Your task to perform on an android device: Clear the shopping cart on amazon.com. Add "razer blade" to the cart on amazon.com Image 0: 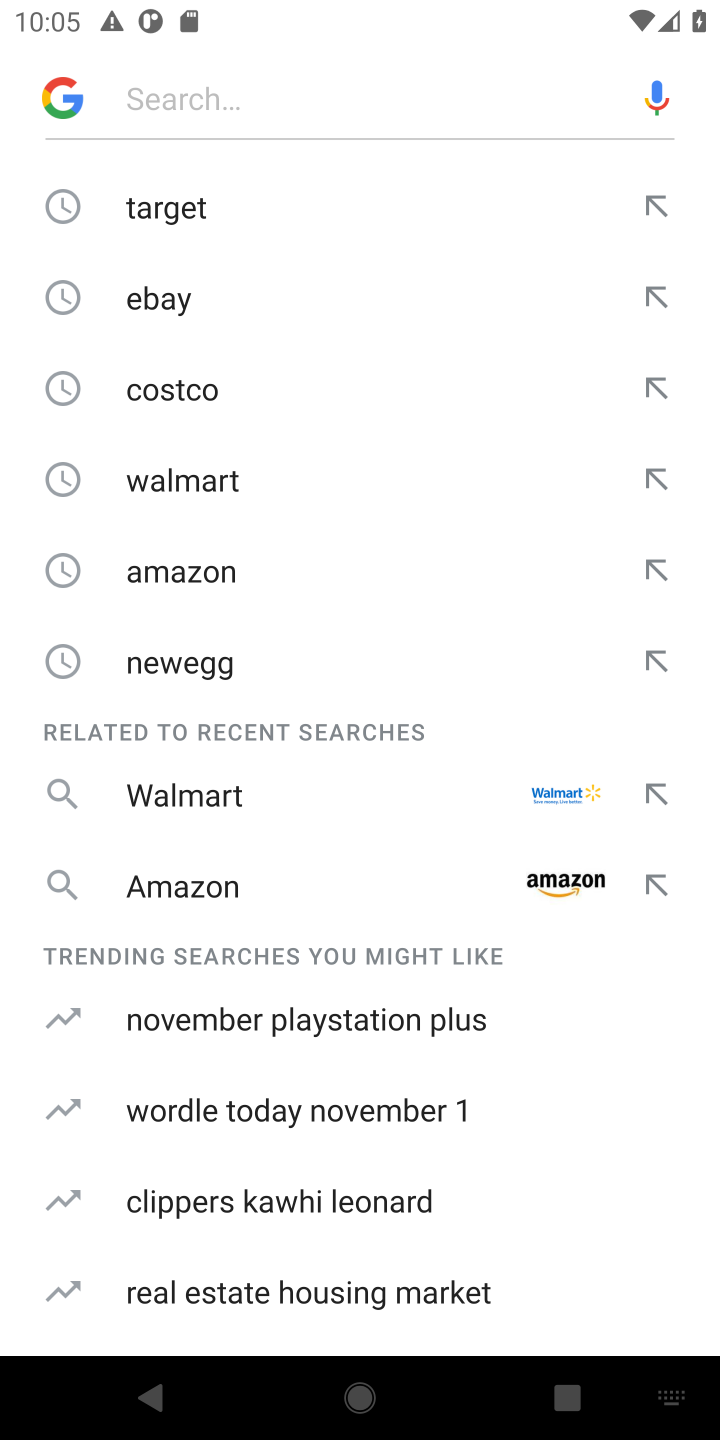
Step 0: press home button
Your task to perform on an android device: Clear the shopping cart on amazon.com. Add "razer blade" to the cart on amazon.com Image 1: 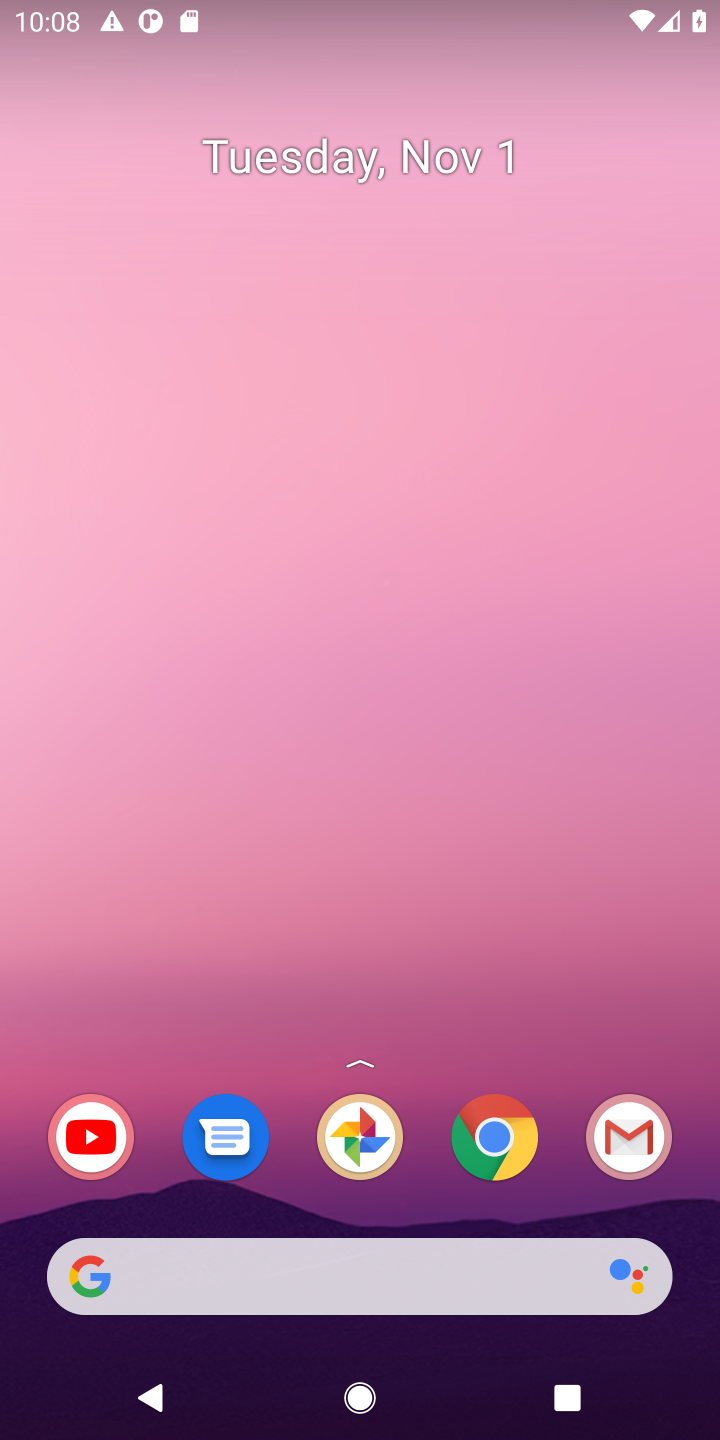
Step 1: click (473, 1299)
Your task to perform on an android device: Clear the shopping cart on amazon.com. Add "razer blade" to the cart on amazon.com Image 2: 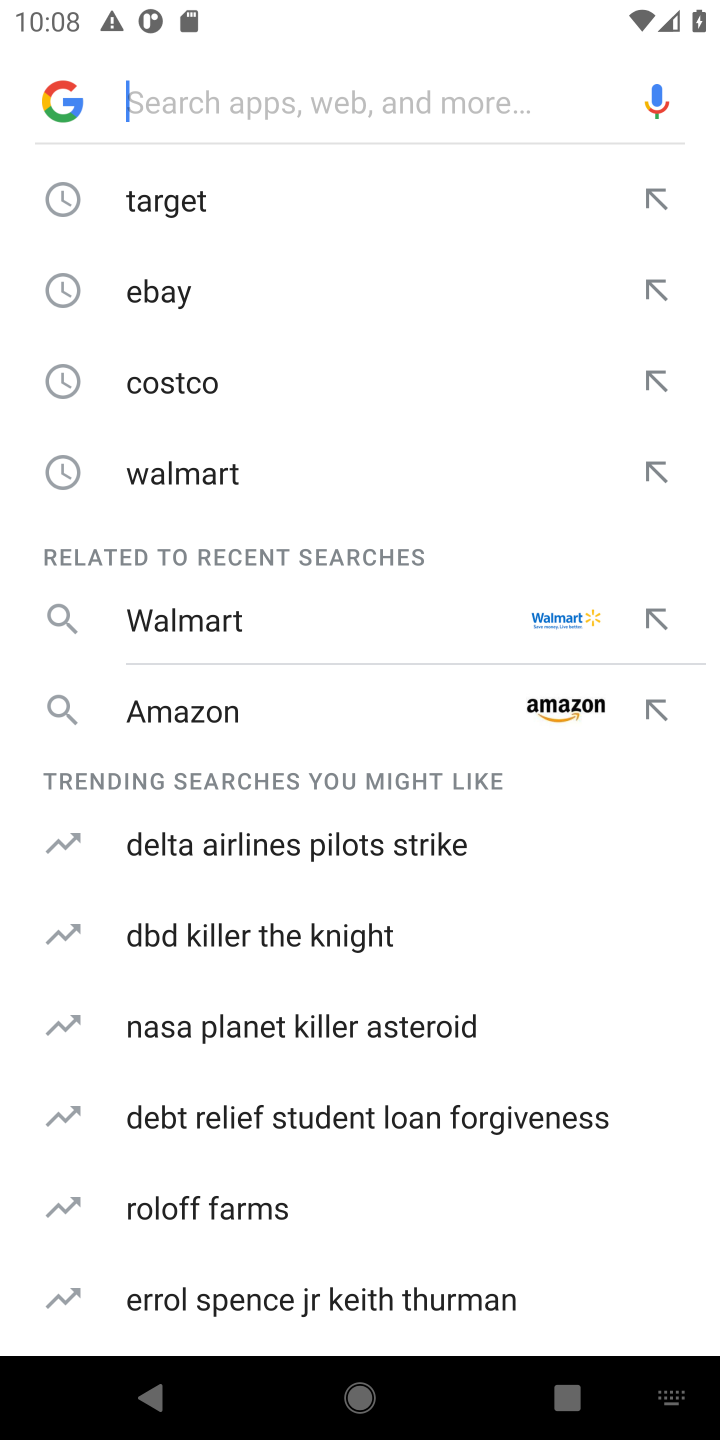
Step 2: click (257, 702)
Your task to perform on an android device: Clear the shopping cart on amazon.com. Add "razer blade" to the cart on amazon.com Image 3: 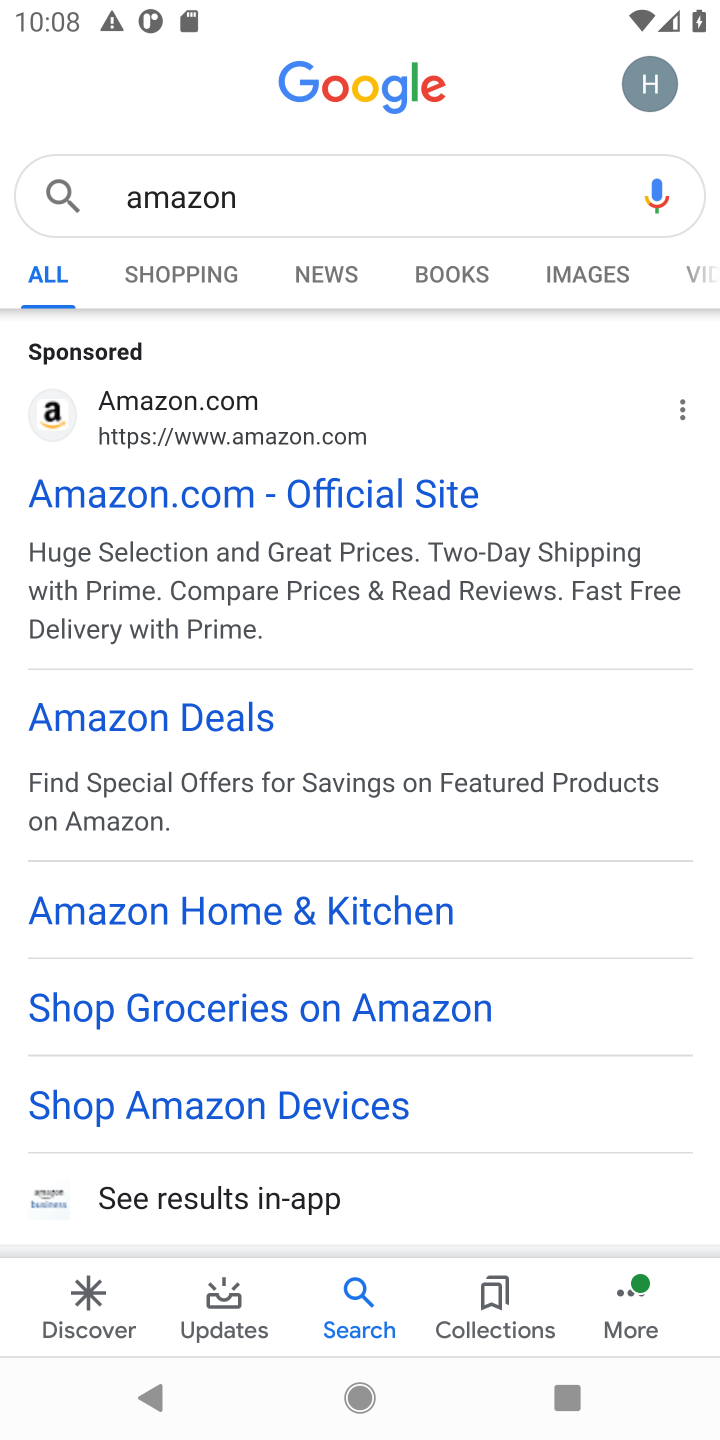
Step 3: click (160, 485)
Your task to perform on an android device: Clear the shopping cart on amazon.com. Add "razer blade" to the cart on amazon.com Image 4: 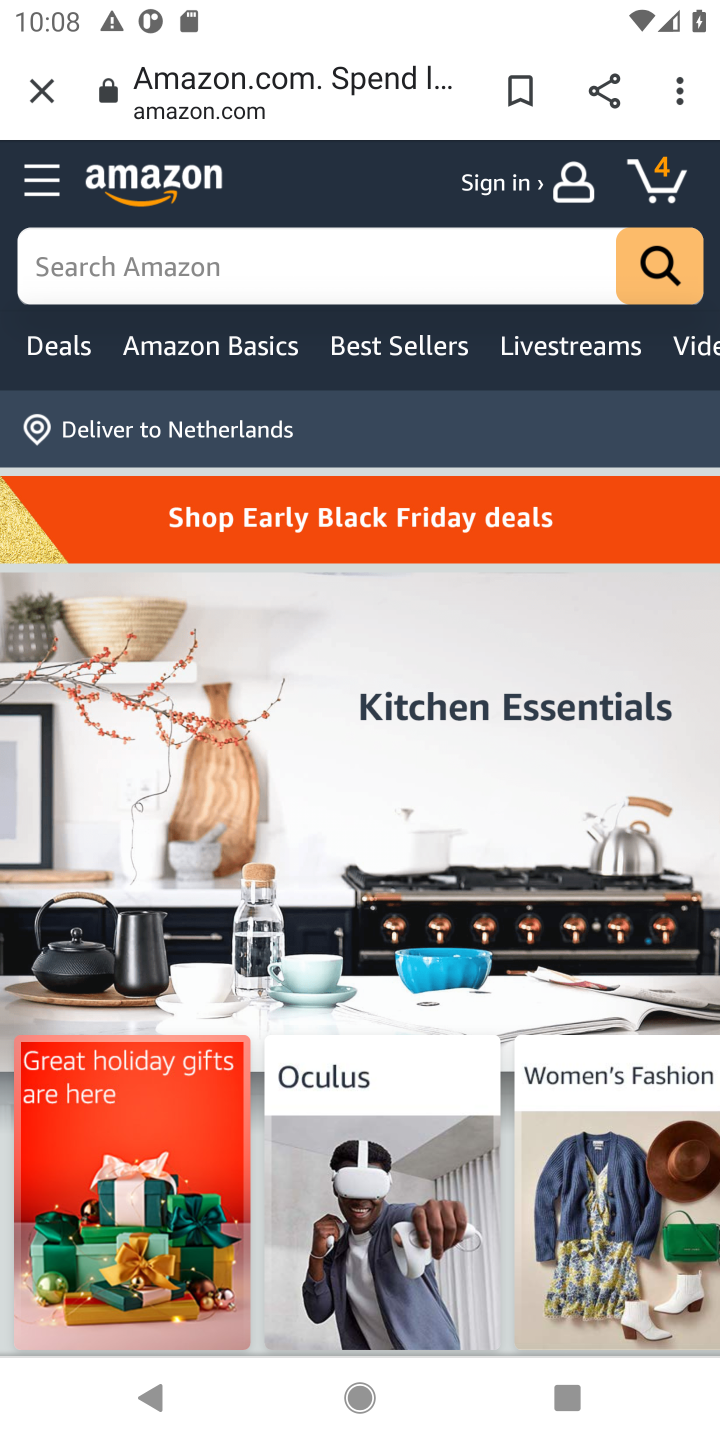
Step 4: click (310, 256)
Your task to perform on an android device: Clear the shopping cart on amazon.com. Add "razer blade" to the cart on amazon.com Image 5: 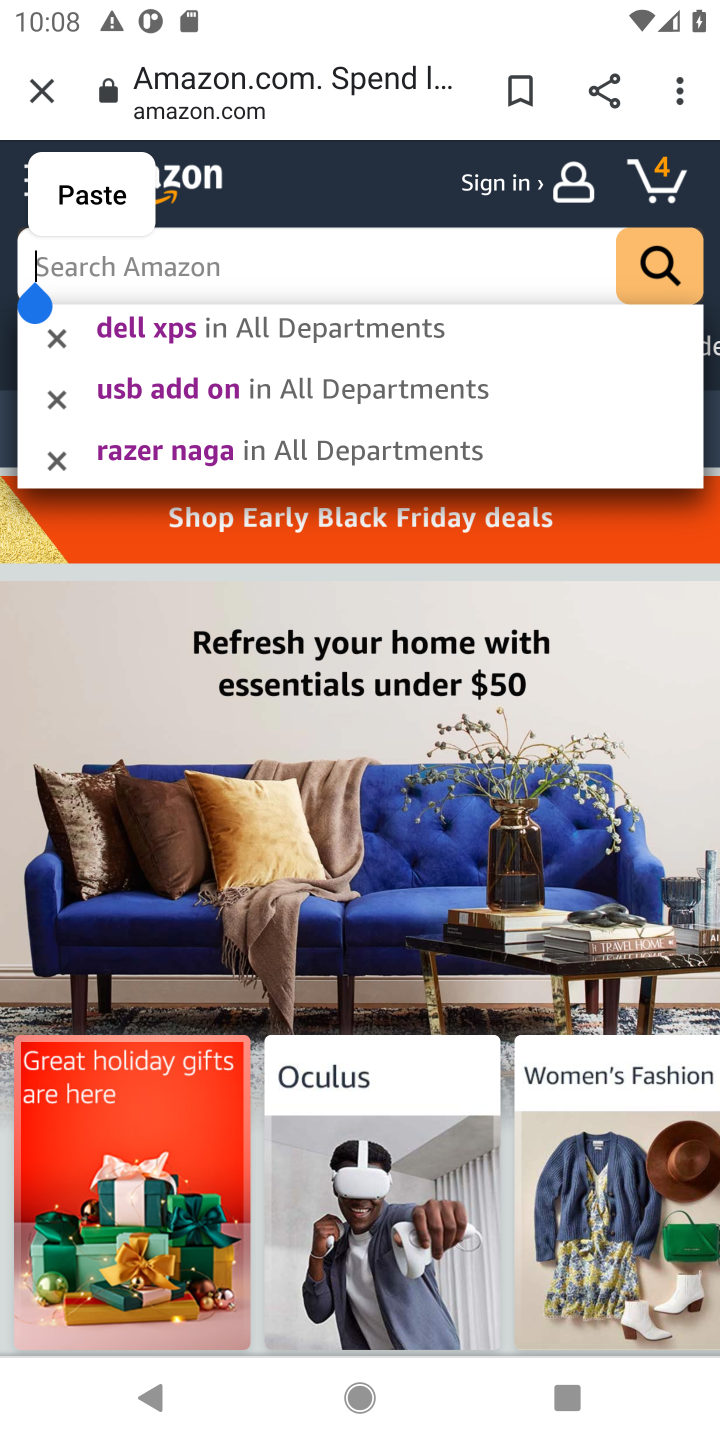
Step 5: type ""razer blade"
Your task to perform on an android device: Clear the shopping cart on amazon.com. Add "razer blade" to the cart on amazon.com Image 6: 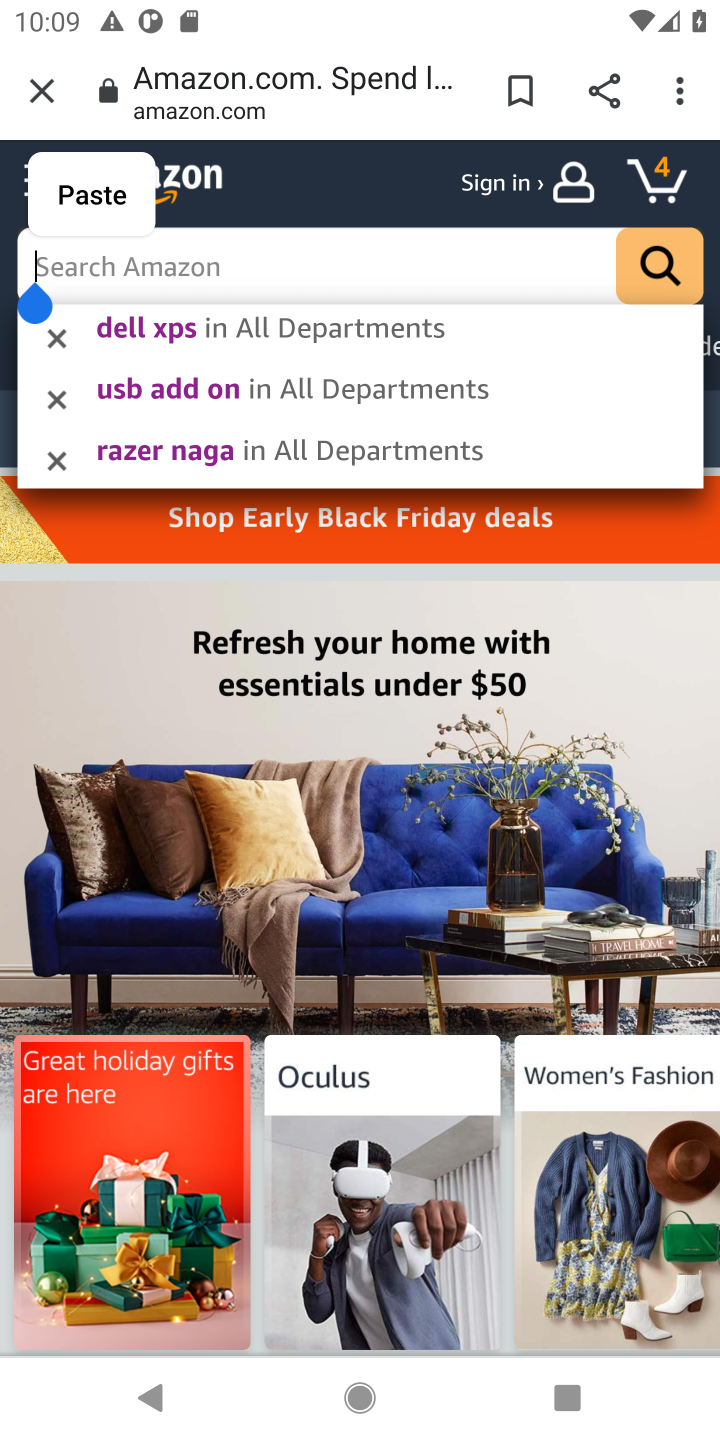
Step 6: type "razer blad"
Your task to perform on an android device: Clear the shopping cart on amazon.com. Add "razer blade" to the cart on amazon.com Image 7: 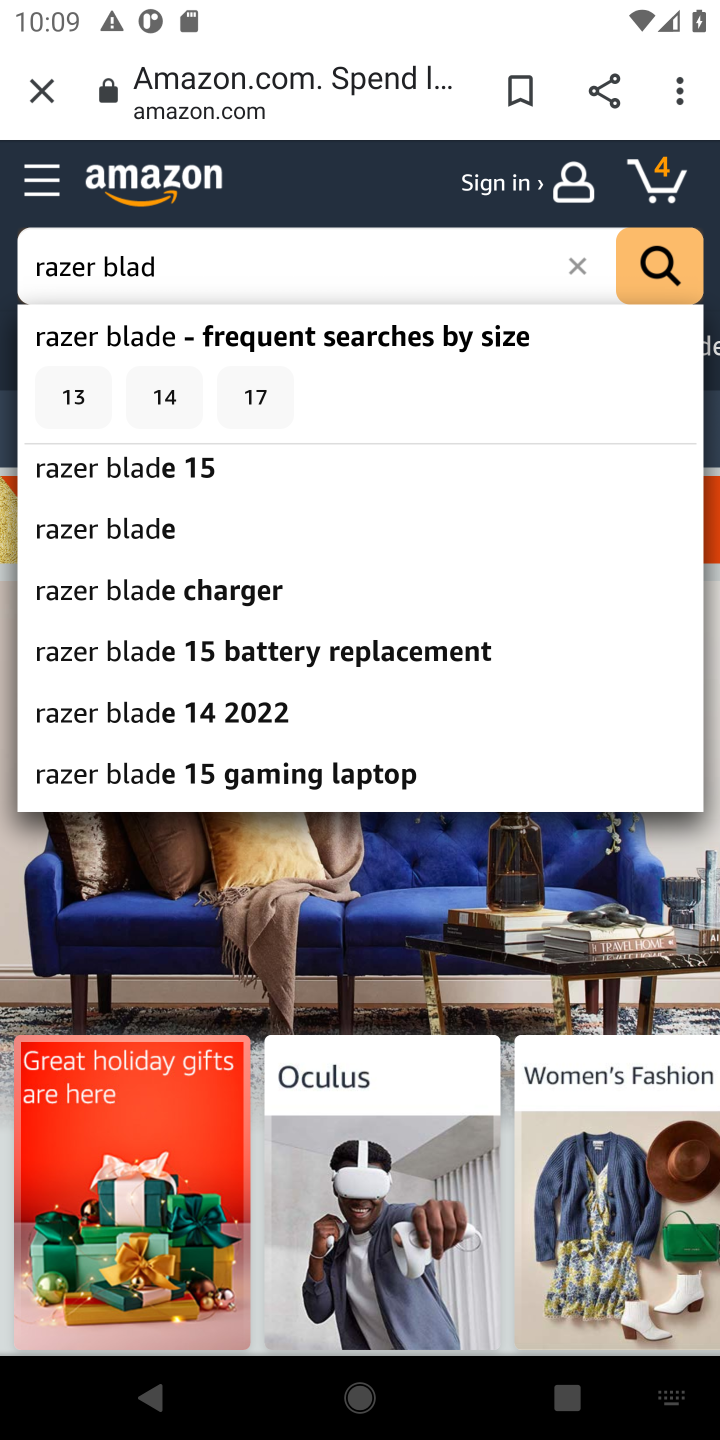
Step 7: click (138, 514)
Your task to perform on an android device: Clear the shopping cart on amazon.com. Add "razer blade" to the cart on amazon.com Image 8: 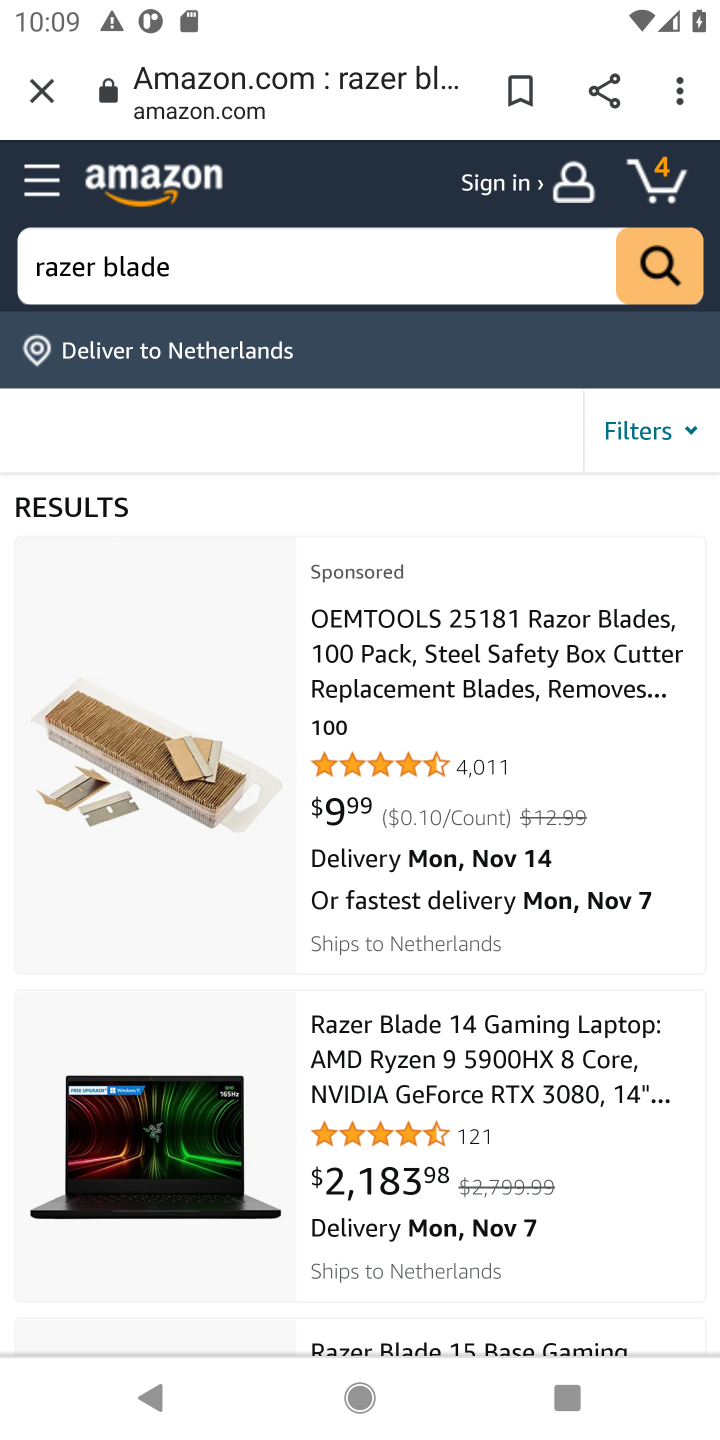
Step 8: click (437, 656)
Your task to perform on an android device: Clear the shopping cart on amazon.com. Add "razer blade" to the cart on amazon.com Image 9: 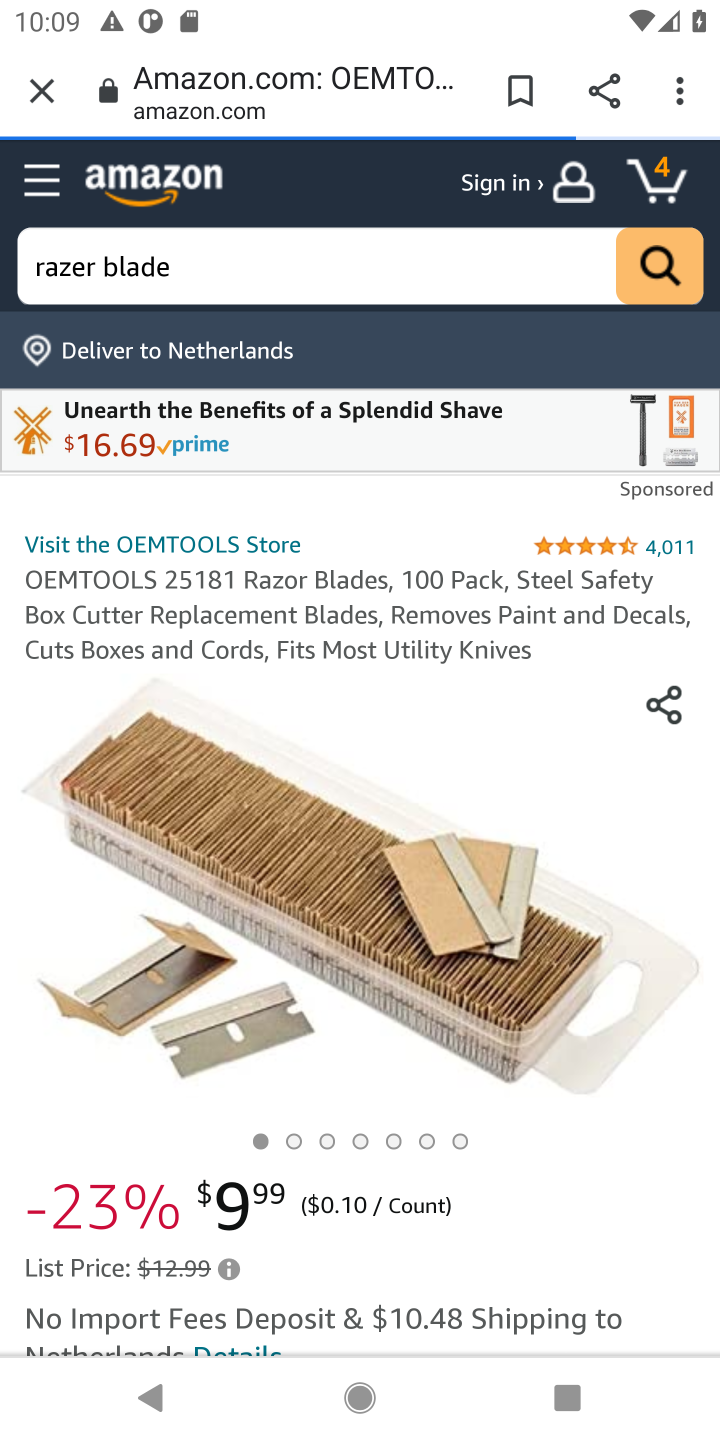
Step 9: click (474, 393)
Your task to perform on an android device: Clear the shopping cart on amazon.com. Add "razer blade" to the cart on amazon.com Image 10: 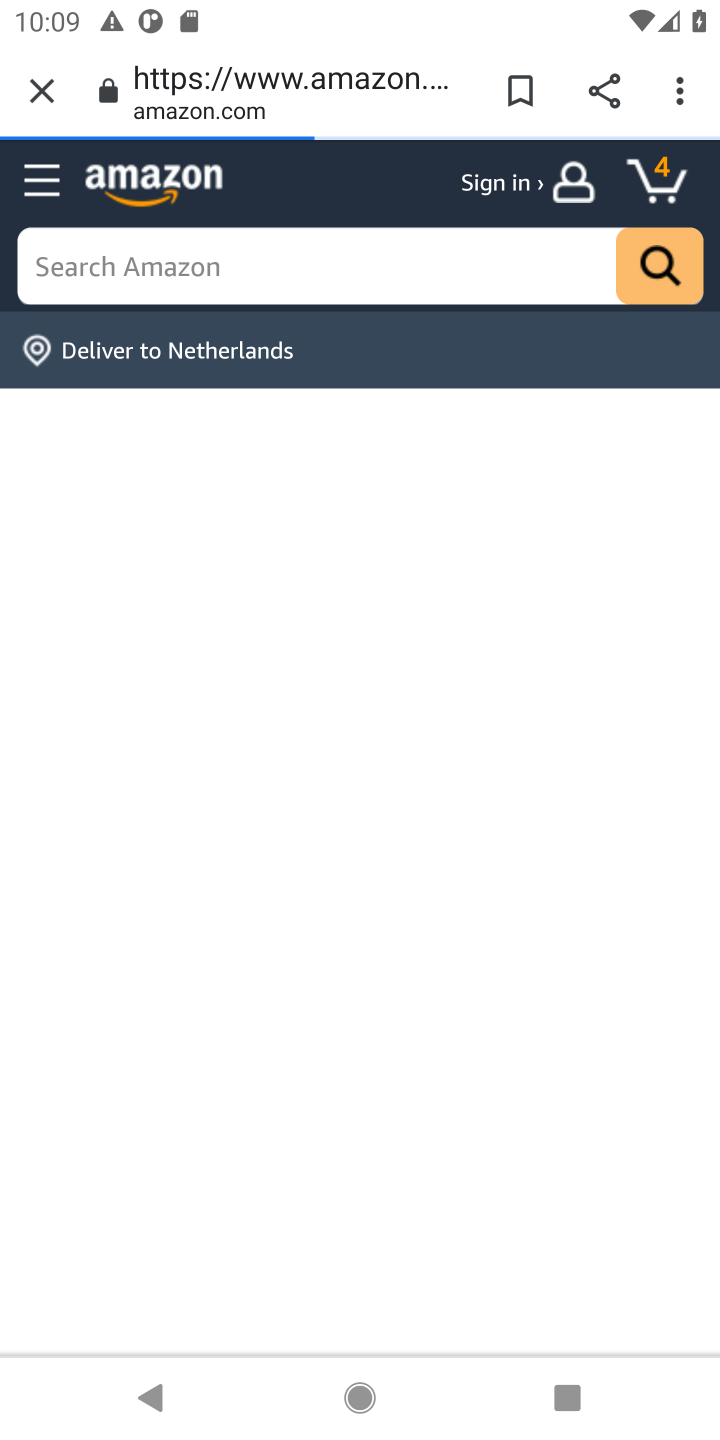
Step 10: drag from (558, 681) to (578, 574)
Your task to perform on an android device: Clear the shopping cart on amazon.com. Add "razer blade" to the cart on amazon.com Image 11: 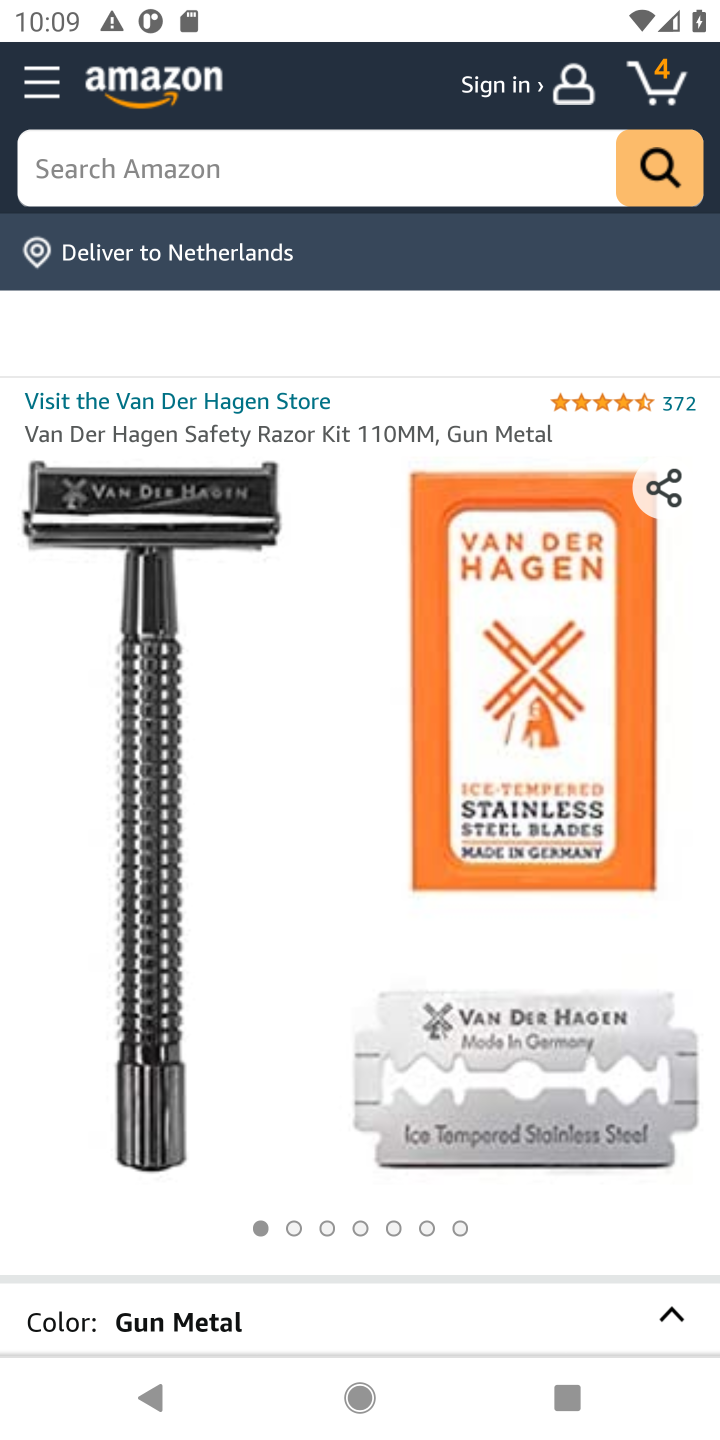
Step 11: click (498, 350)
Your task to perform on an android device: Clear the shopping cart on amazon.com. Add "razer blade" to the cart on amazon.com Image 12: 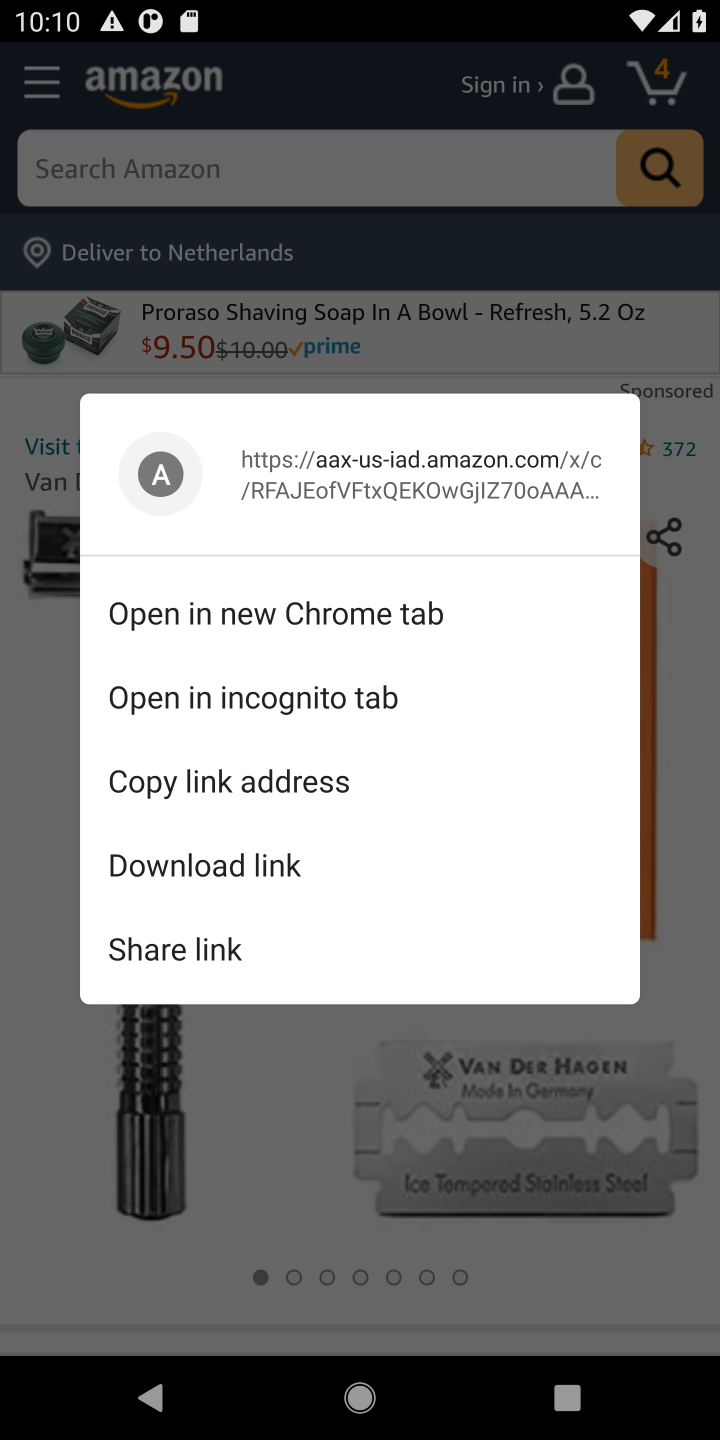
Step 12: drag from (387, 1225) to (407, 1150)
Your task to perform on an android device: Clear the shopping cart on amazon.com. Add "razer blade" to the cart on amazon.com Image 13: 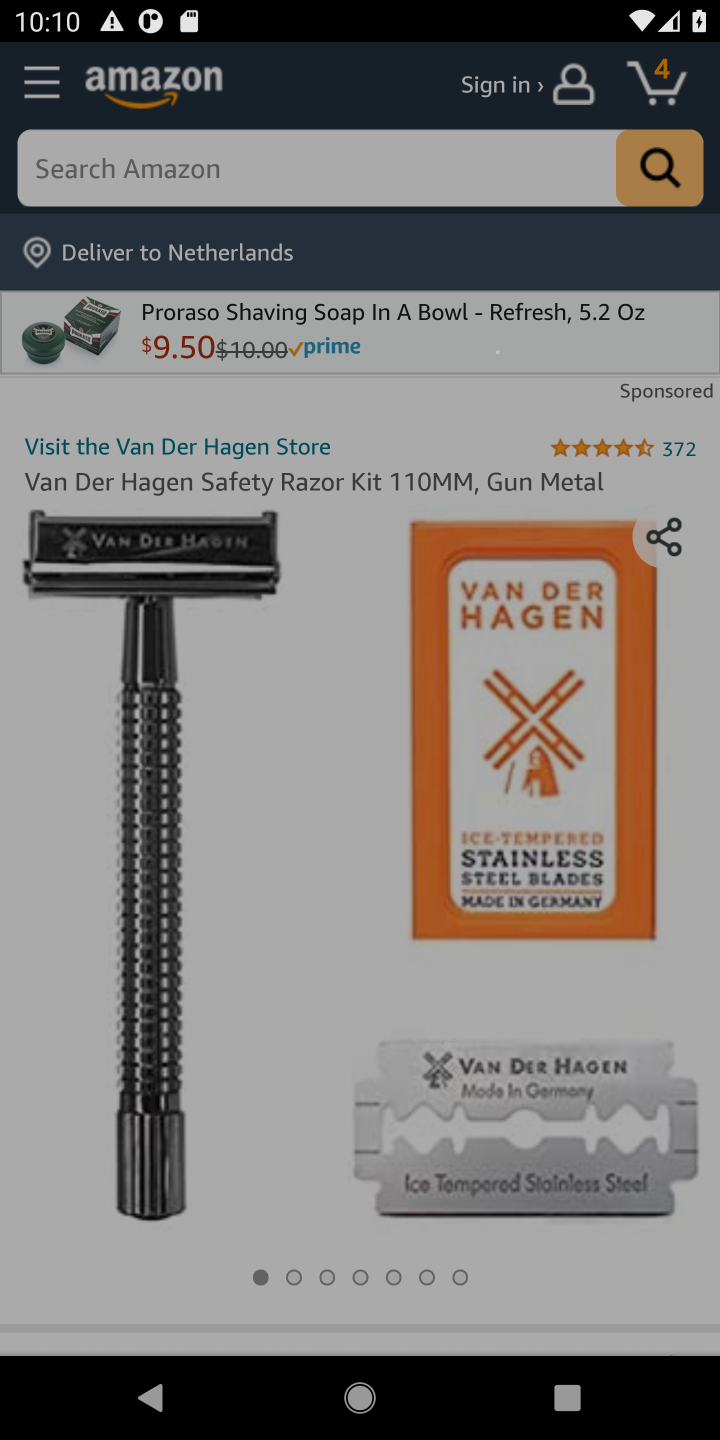
Step 13: press back button
Your task to perform on an android device: Clear the shopping cart on amazon.com. Add "razer blade" to the cart on amazon.com Image 14: 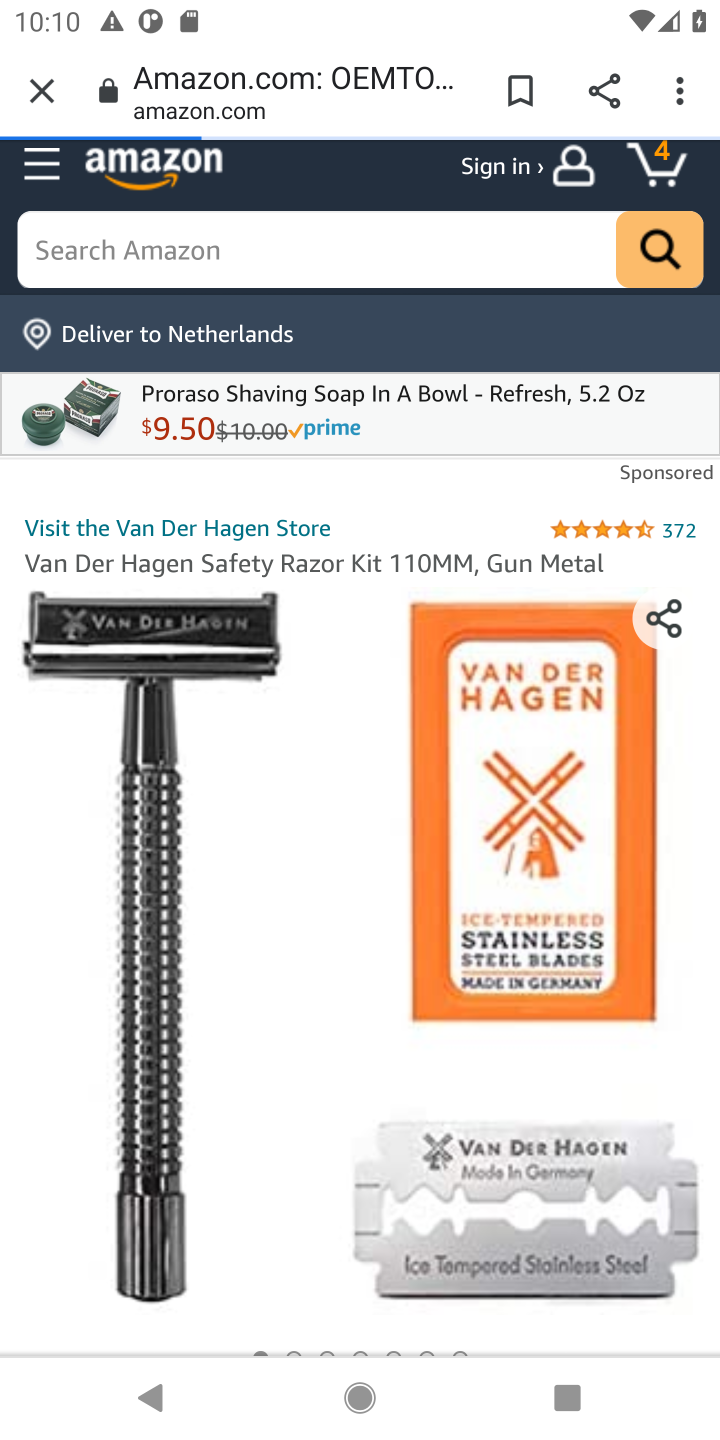
Step 14: click (511, 564)
Your task to perform on an android device: Clear the shopping cart on amazon.com. Add "razer blade" to the cart on amazon.com Image 15: 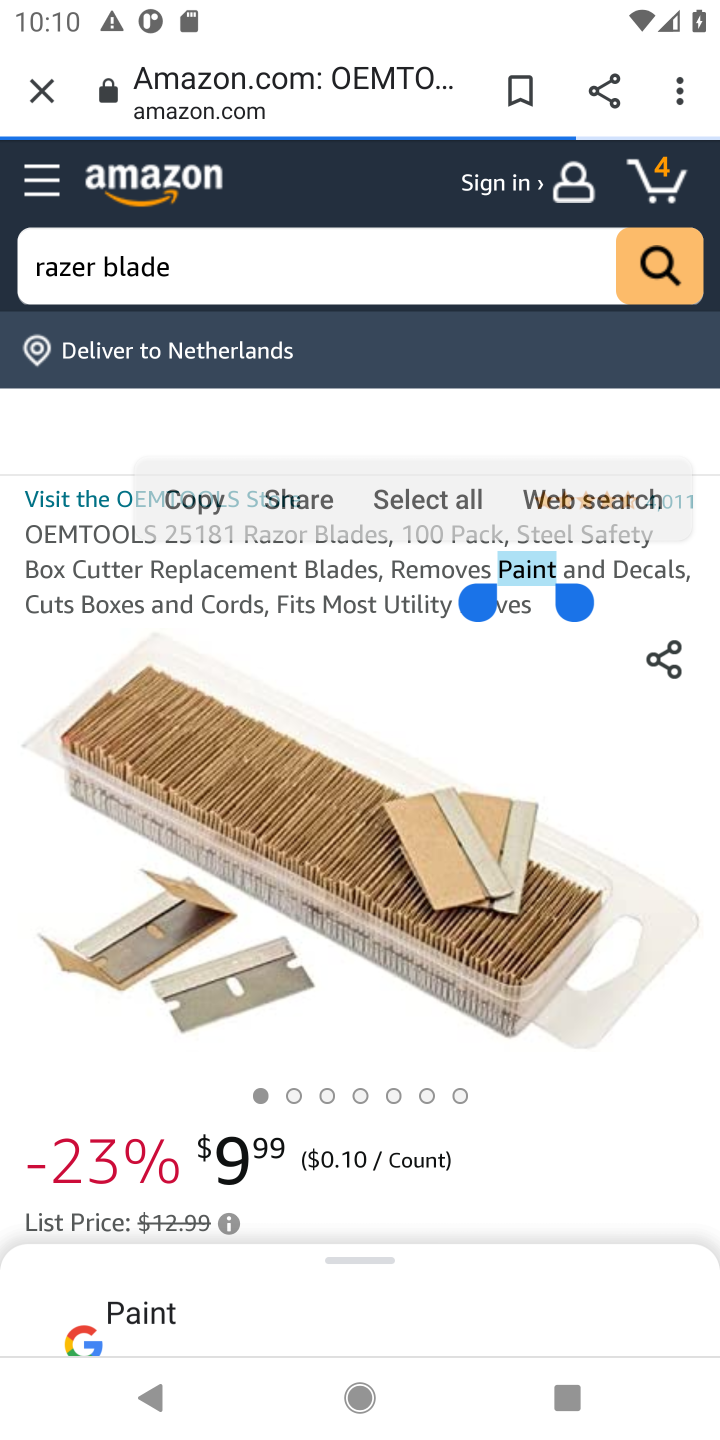
Step 15: click (559, 541)
Your task to perform on an android device: Clear the shopping cart on amazon.com. Add "razer blade" to the cart on amazon.com Image 16: 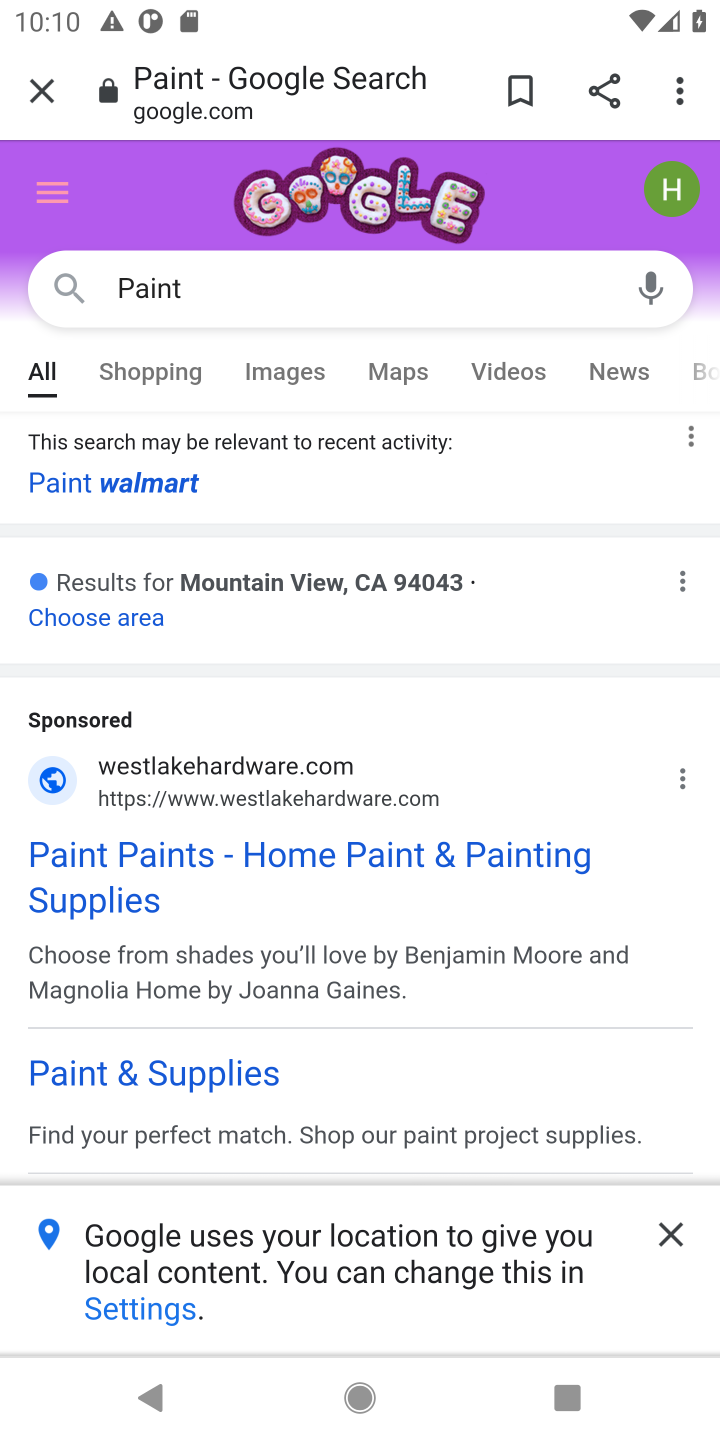
Step 16: drag from (389, 1064) to (480, 590)
Your task to perform on an android device: Clear the shopping cart on amazon.com. Add "razer blade" to the cart on amazon.com Image 17: 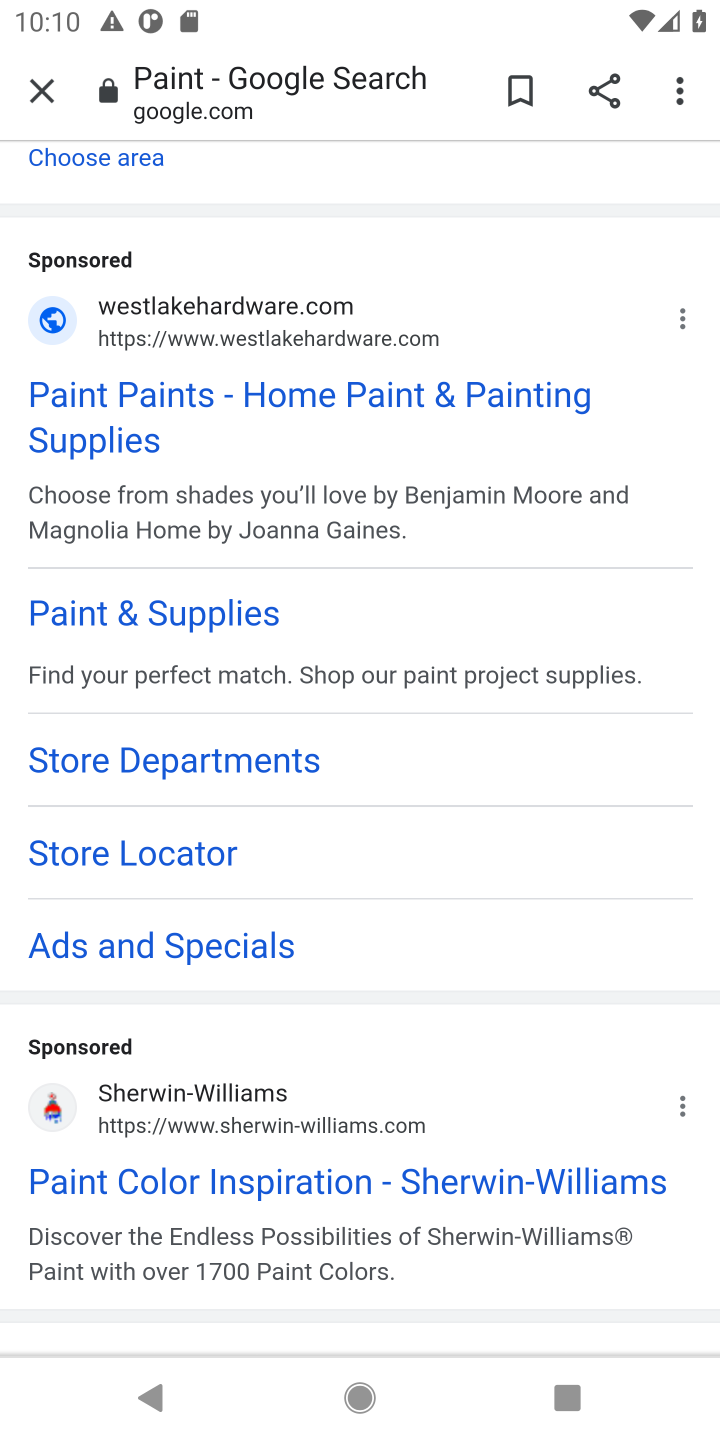
Step 17: press back button
Your task to perform on an android device: Clear the shopping cart on amazon.com. Add "razer blade" to the cart on amazon.com Image 18: 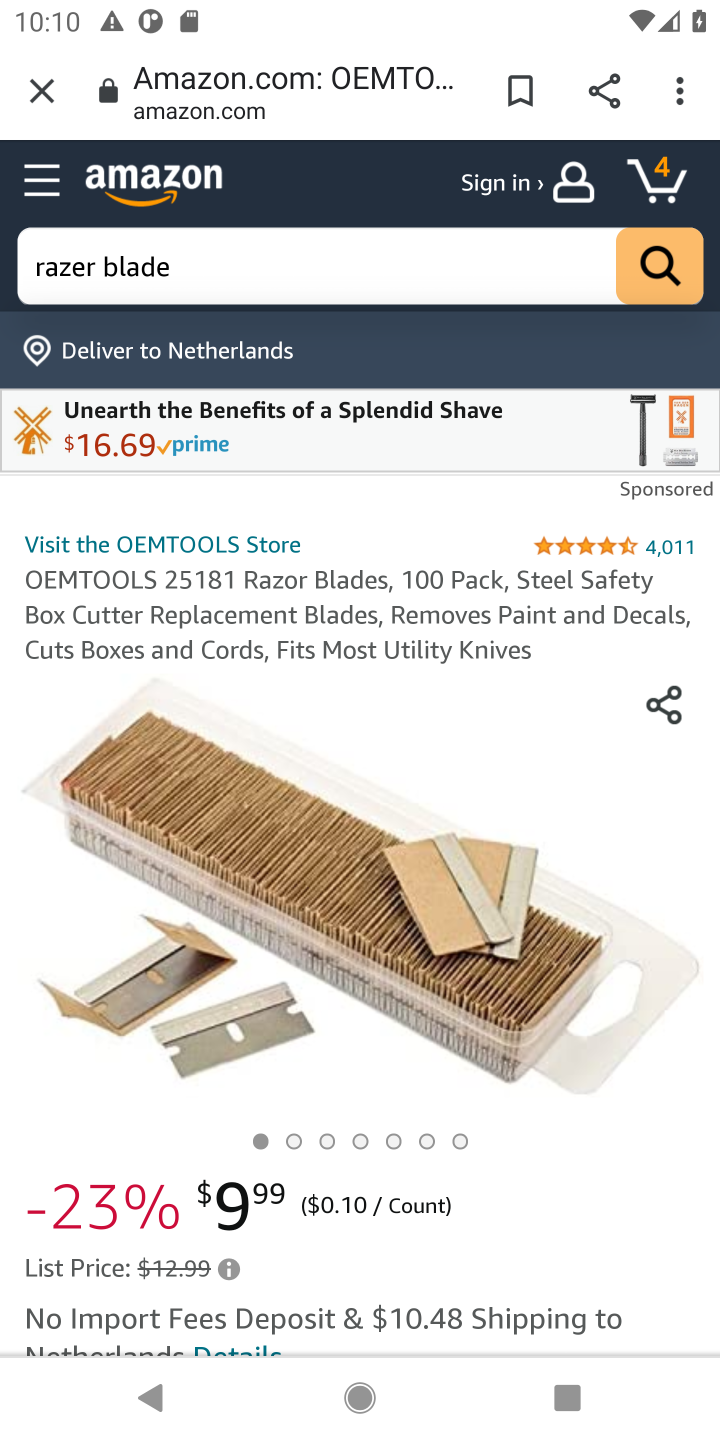
Step 18: drag from (310, 938) to (325, 633)
Your task to perform on an android device: Clear the shopping cart on amazon.com. Add "razer blade" to the cart on amazon.com Image 19: 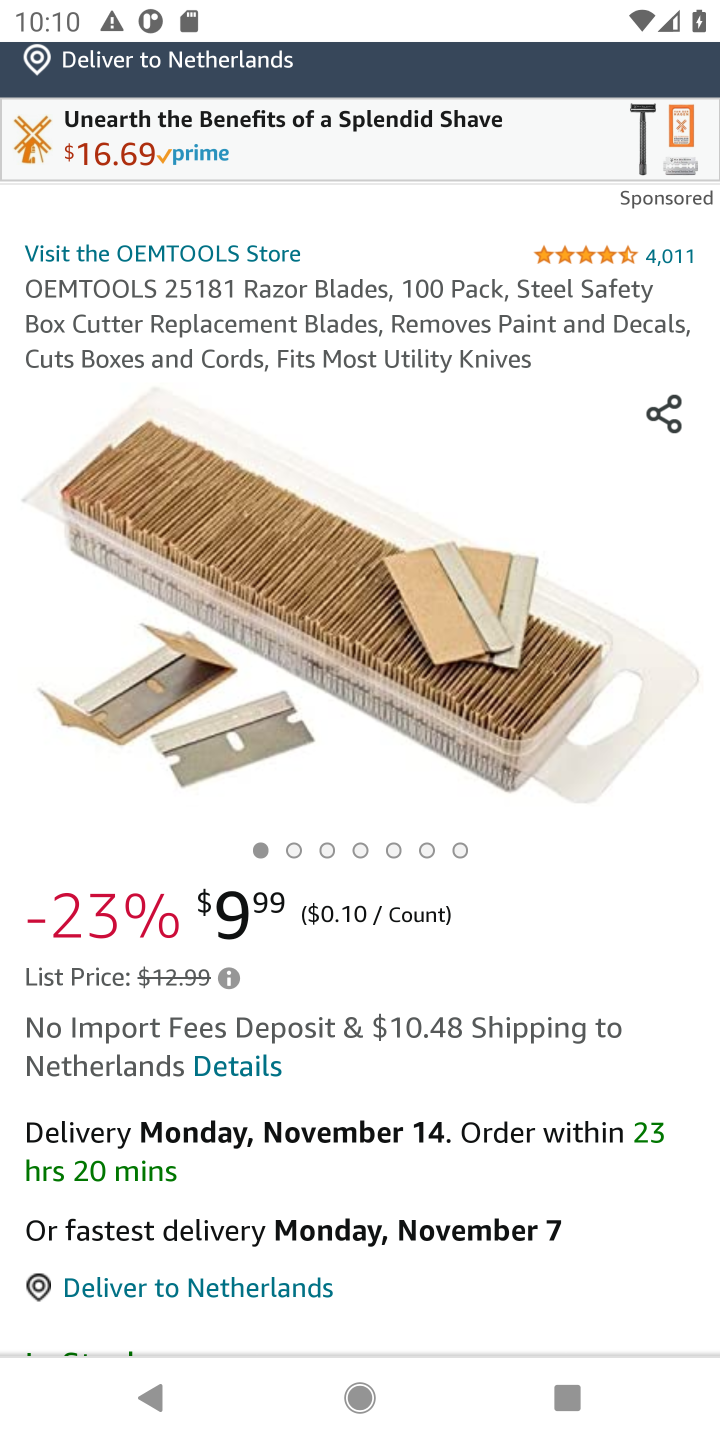
Step 19: drag from (360, 1113) to (370, 190)
Your task to perform on an android device: Clear the shopping cart on amazon.com. Add "razer blade" to the cart on amazon.com Image 20: 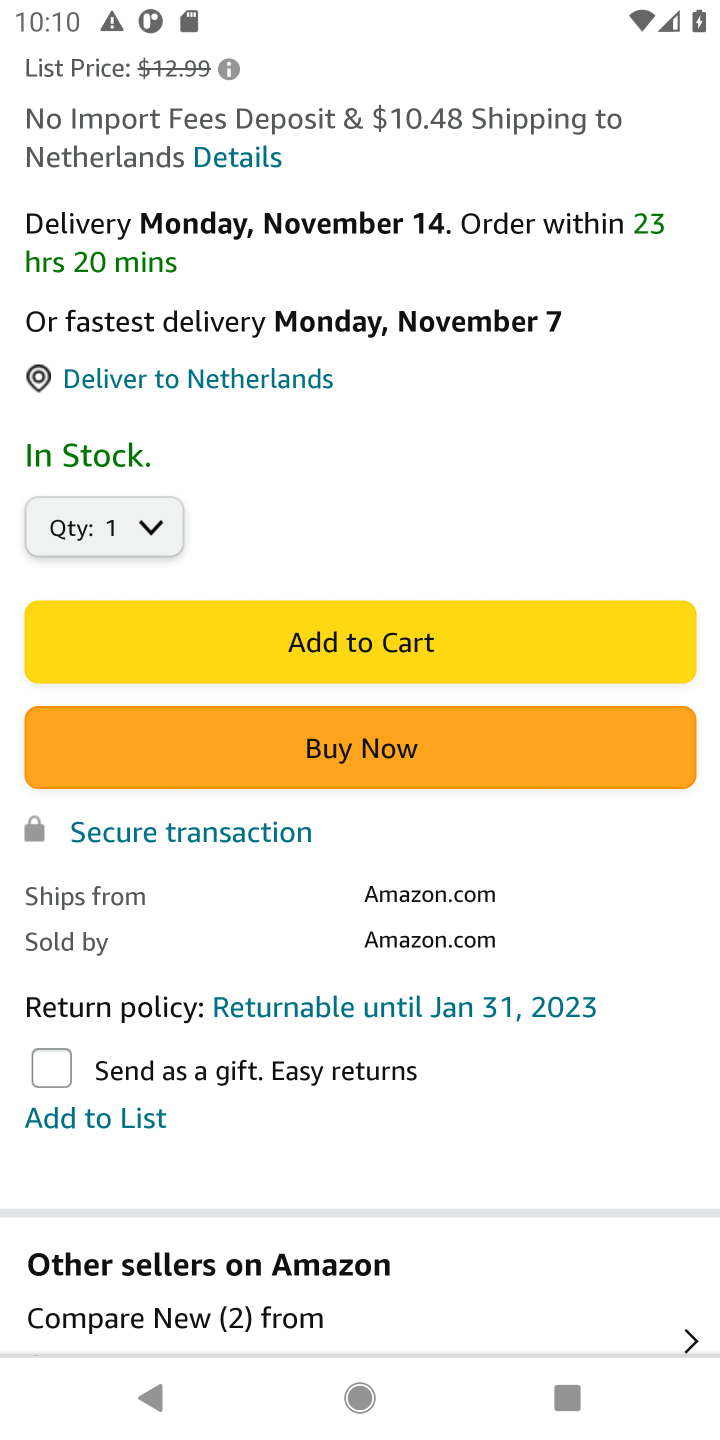
Step 20: click (362, 626)
Your task to perform on an android device: Clear the shopping cart on amazon.com. Add "razer blade" to the cart on amazon.com Image 21: 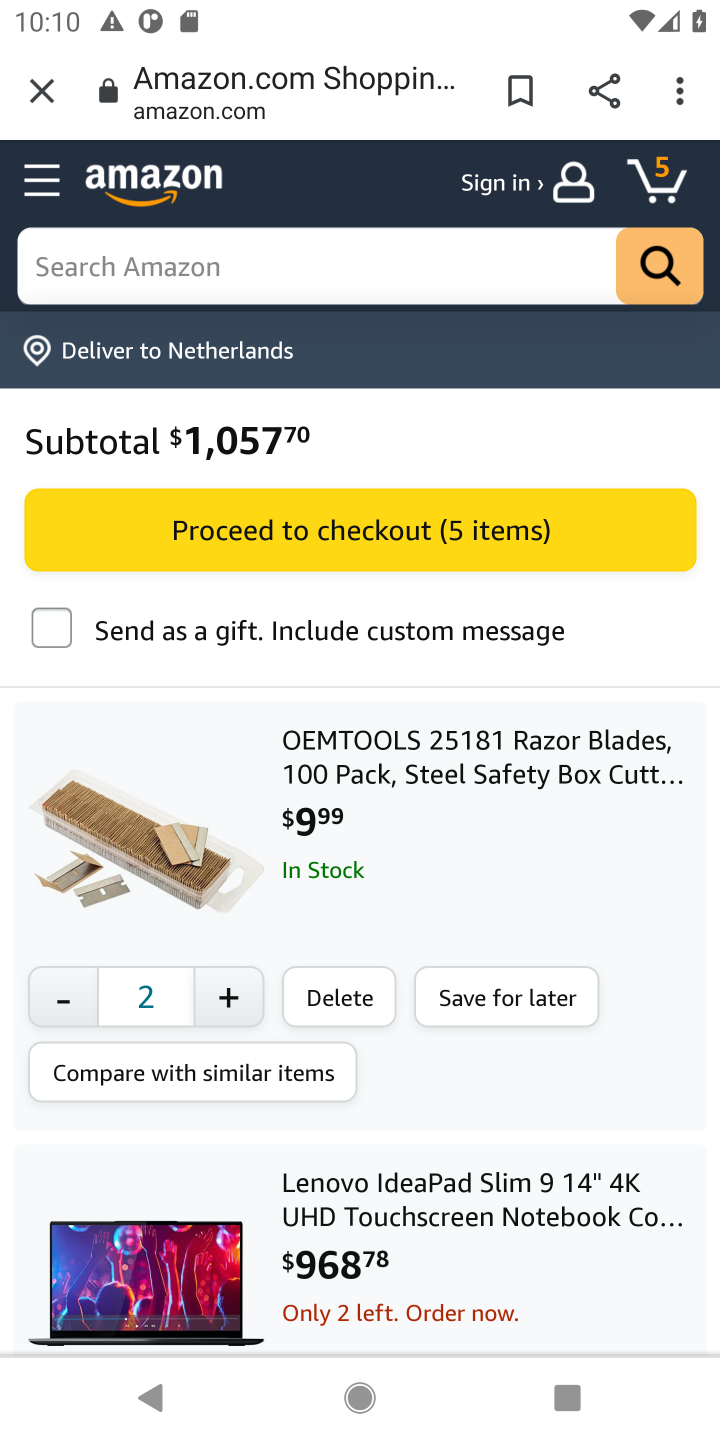
Step 21: task complete